Your task to perform on an android device: Open the calendar app, open the side menu, and click the "Day" option Image 0: 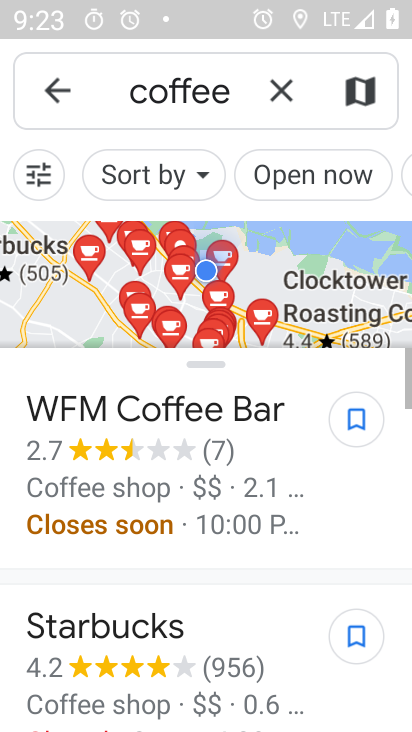
Step 0: press home button
Your task to perform on an android device: Open the calendar app, open the side menu, and click the "Day" option Image 1: 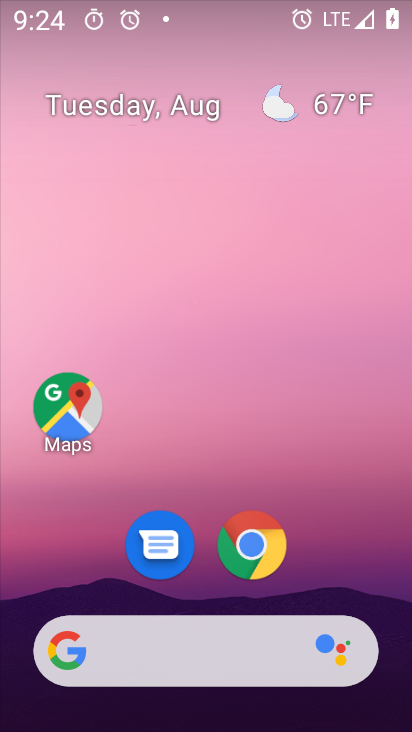
Step 1: drag from (204, 669) to (276, 166)
Your task to perform on an android device: Open the calendar app, open the side menu, and click the "Day" option Image 2: 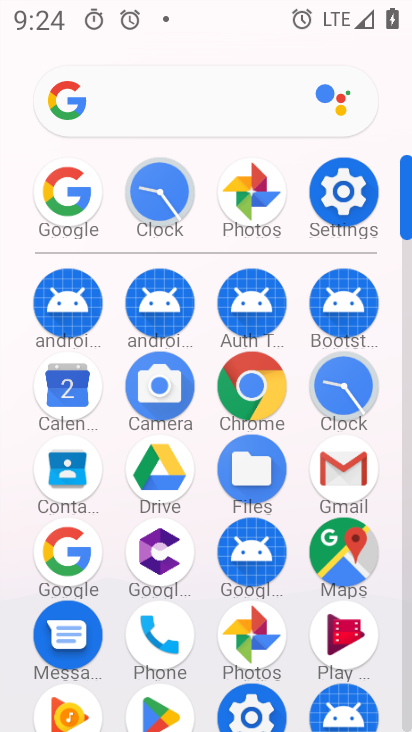
Step 2: click (72, 403)
Your task to perform on an android device: Open the calendar app, open the side menu, and click the "Day" option Image 3: 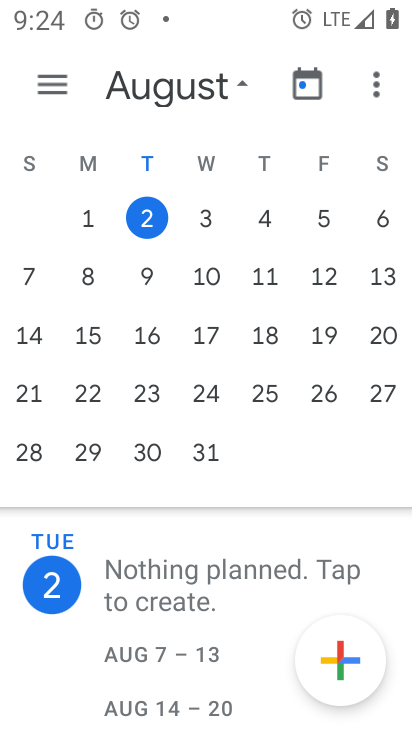
Step 3: click (47, 81)
Your task to perform on an android device: Open the calendar app, open the side menu, and click the "Day" option Image 4: 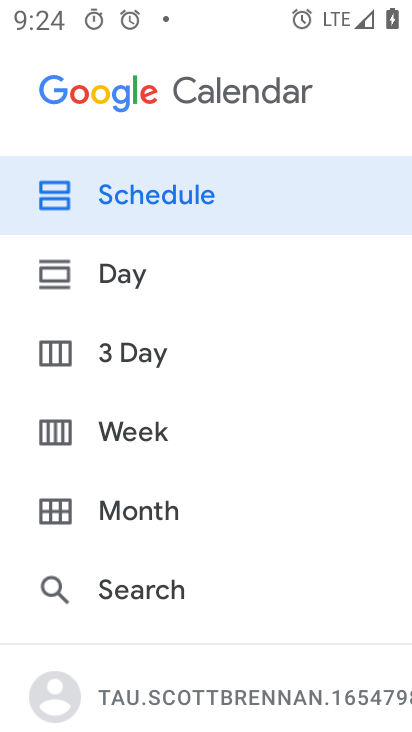
Step 4: click (169, 283)
Your task to perform on an android device: Open the calendar app, open the side menu, and click the "Day" option Image 5: 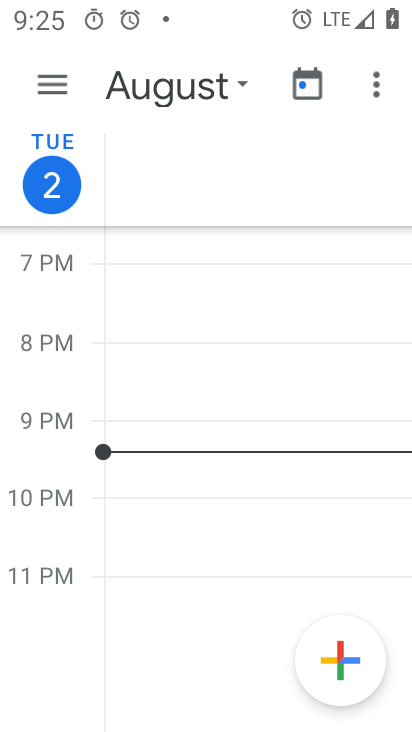
Step 5: task complete